Your task to perform on an android device: turn on showing notifications on the lock screen Image 0: 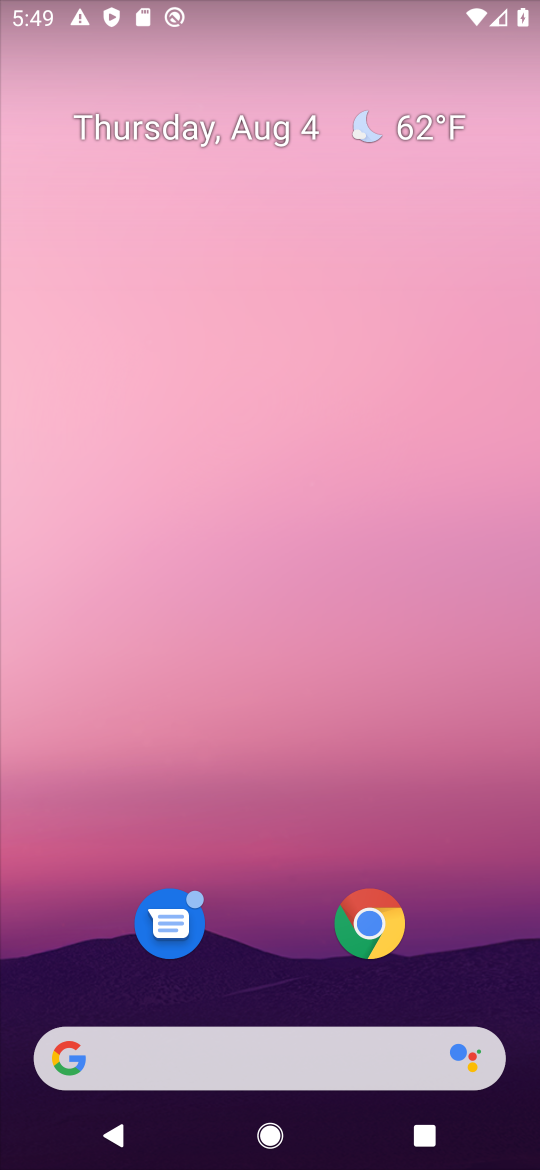
Step 0: drag from (496, 995) to (296, 275)
Your task to perform on an android device: turn on showing notifications on the lock screen Image 1: 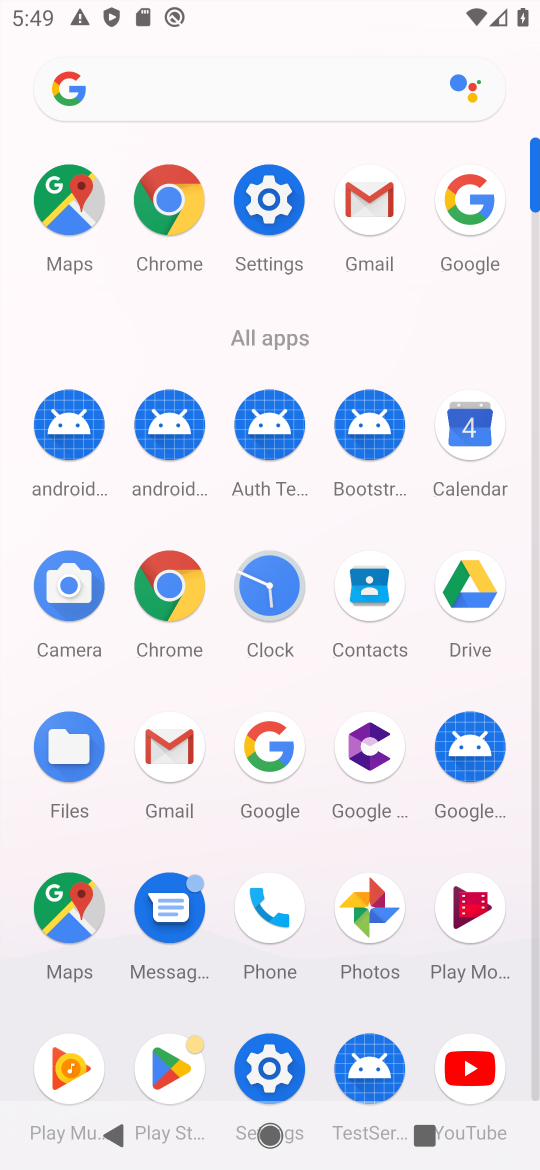
Step 1: click (273, 1065)
Your task to perform on an android device: turn on showing notifications on the lock screen Image 2: 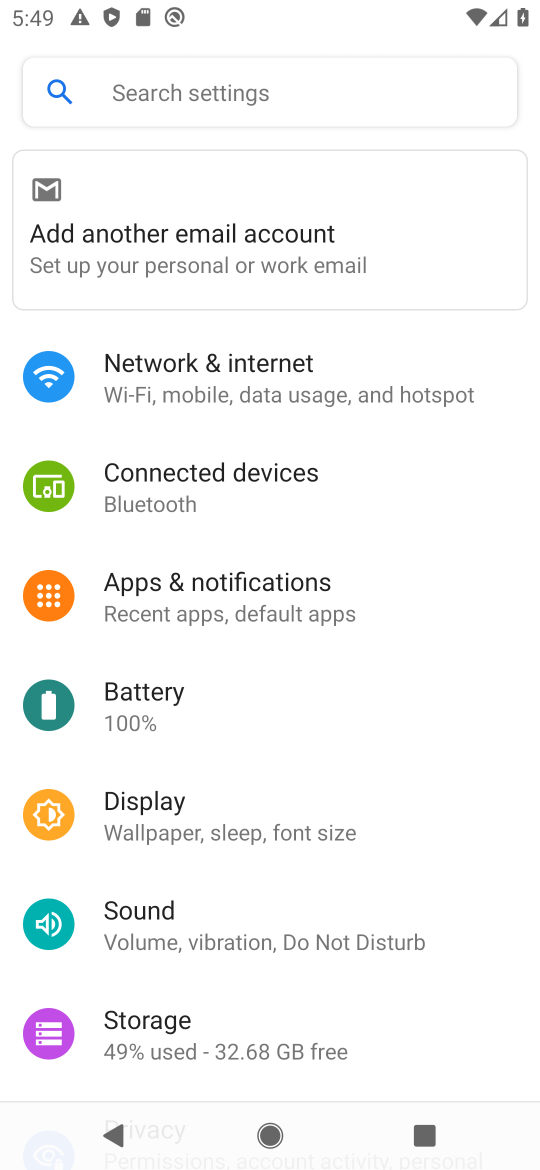
Step 2: click (255, 587)
Your task to perform on an android device: turn on showing notifications on the lock screen Image 3: 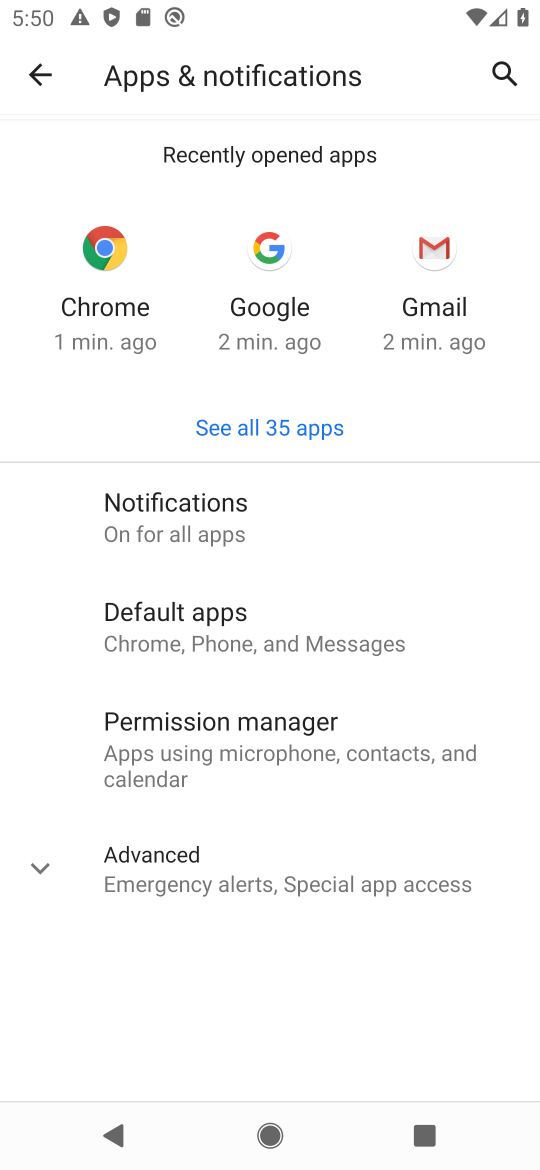
Step 3: click (197, 859)
Your task to perform on an android device: turn on showing notifications on the lock screen Image 4: 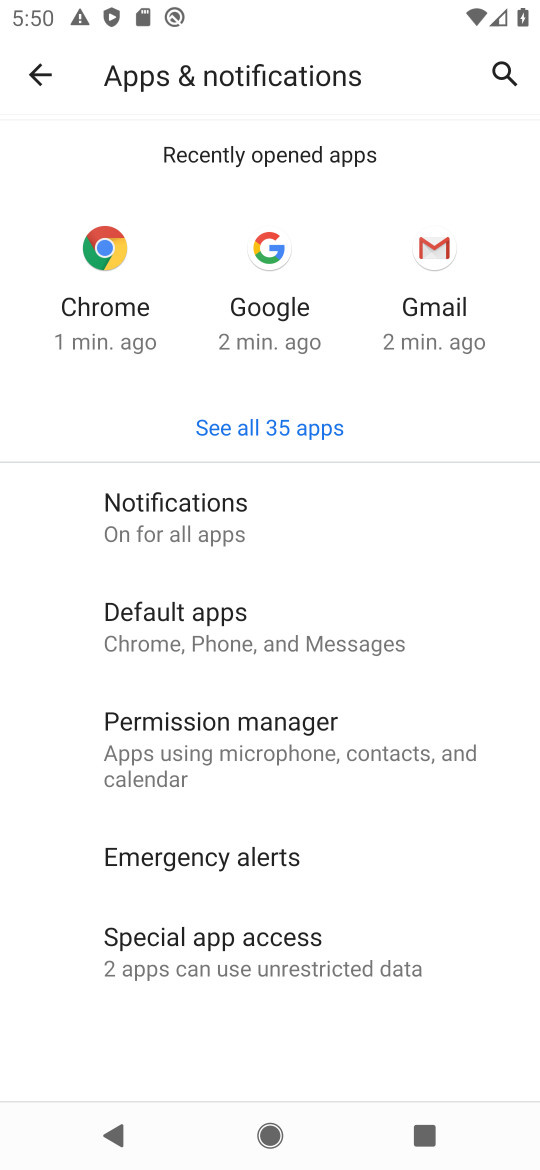
Step 4: click (144, 517)
Your task to perform on an android device: turn on showing notifications on the lock screen Image 5: 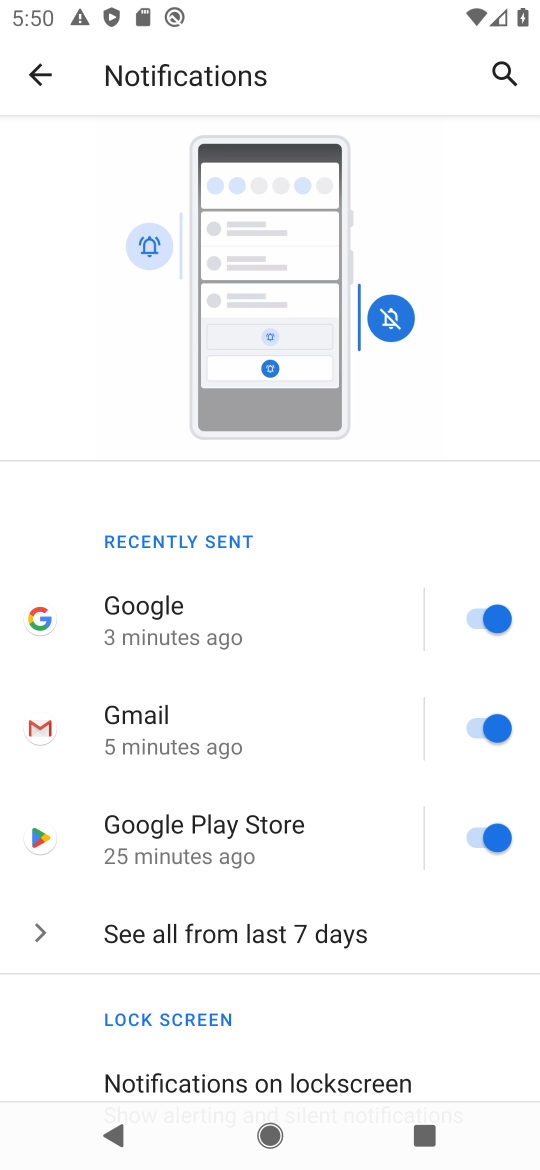
Step 5: drag from (316, 986) to (240, 629)
Your task to perform on an android device: turn on showing notifications on the lock screen Image 6: 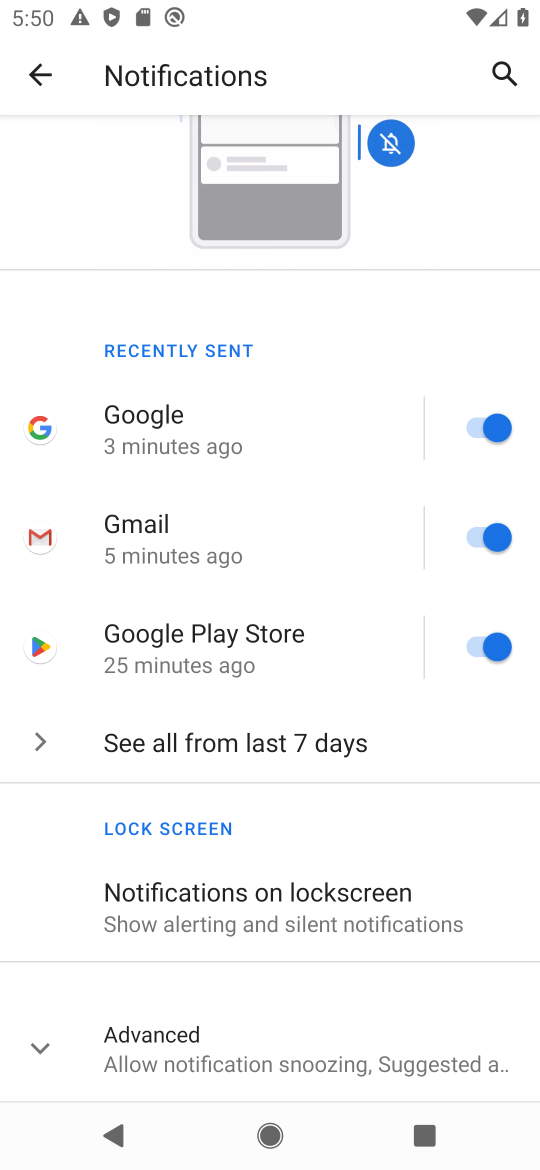
Step 6: click (380, 924)
Your task to perform on an android device: turn on showing notifications on the lock screen Image 7: 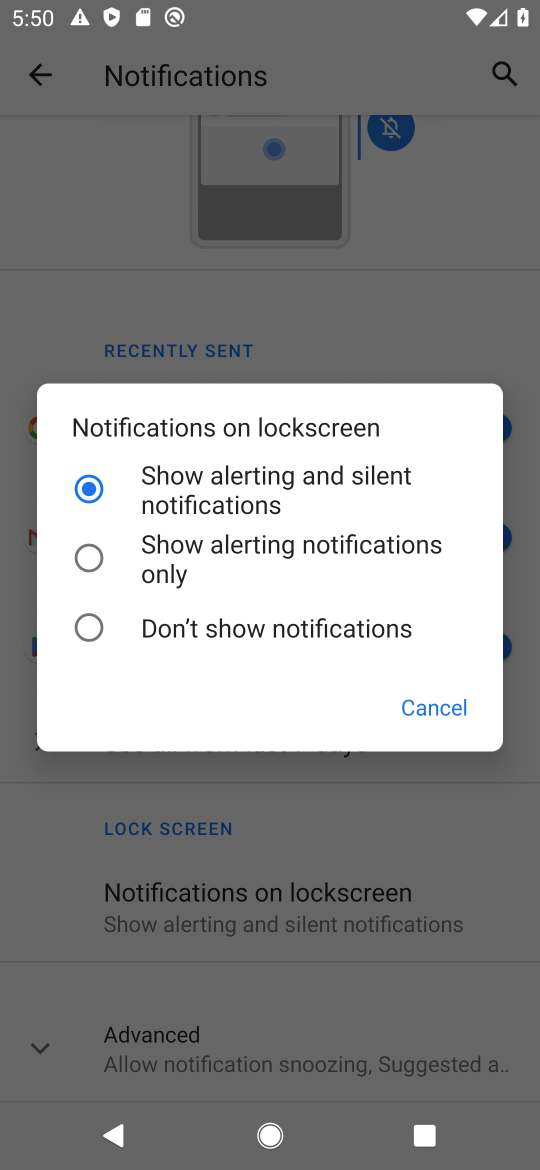
Step 7: task complete